Your task to perform on an android device: Turn on the flashlight Image 0: 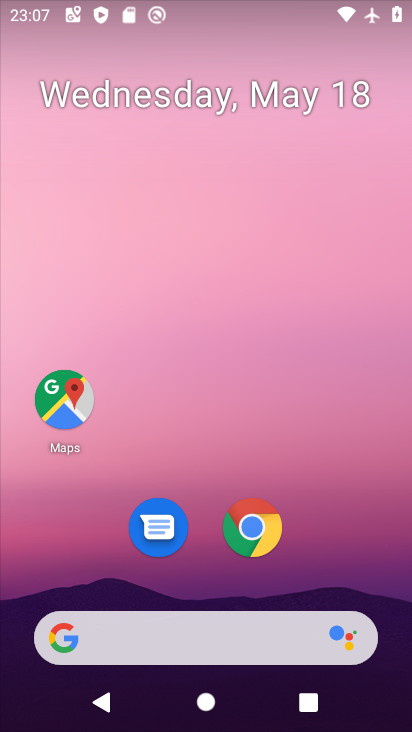
Step 0: drag from (334, 565) to (337, 282)
Your task to perform on an android device: Turn on the flashlight Image 1: 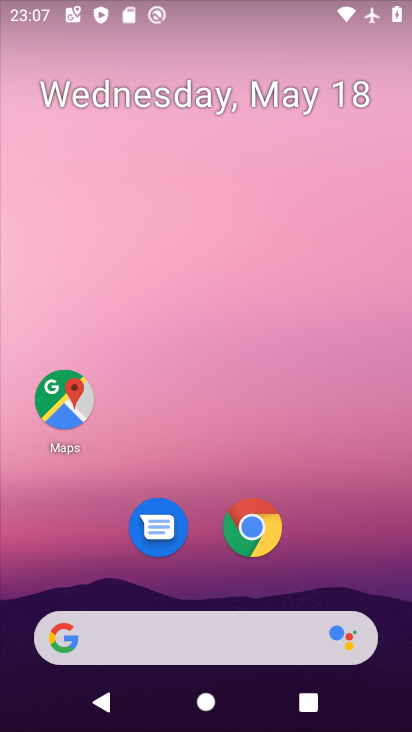
Step 1: drag from (359, 567) to (362, 254)
Your task to perform on an android device: Turn on the flashlight Image 2: 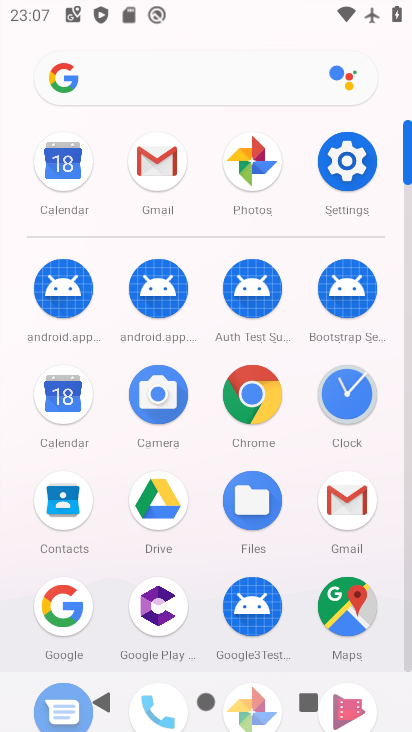
Step 2: click (338, 186)
Your task to perform on an android device: Turn on the flashlight Image 3: 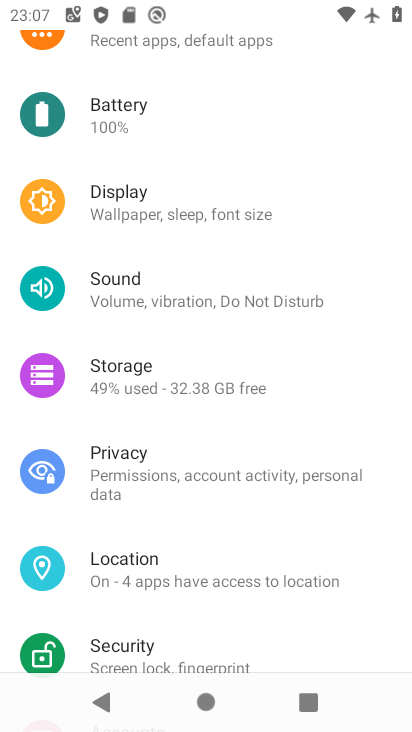
Step 3: click (273, 353)
Your task to perform on an android device: Turn on the flashlight Image 4: 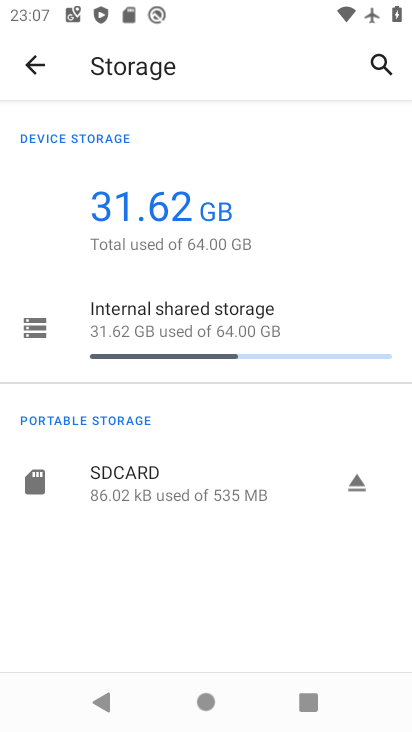
Step 4: task complete